Your task to perform on an android device: open app "AliExpress" Image 0: 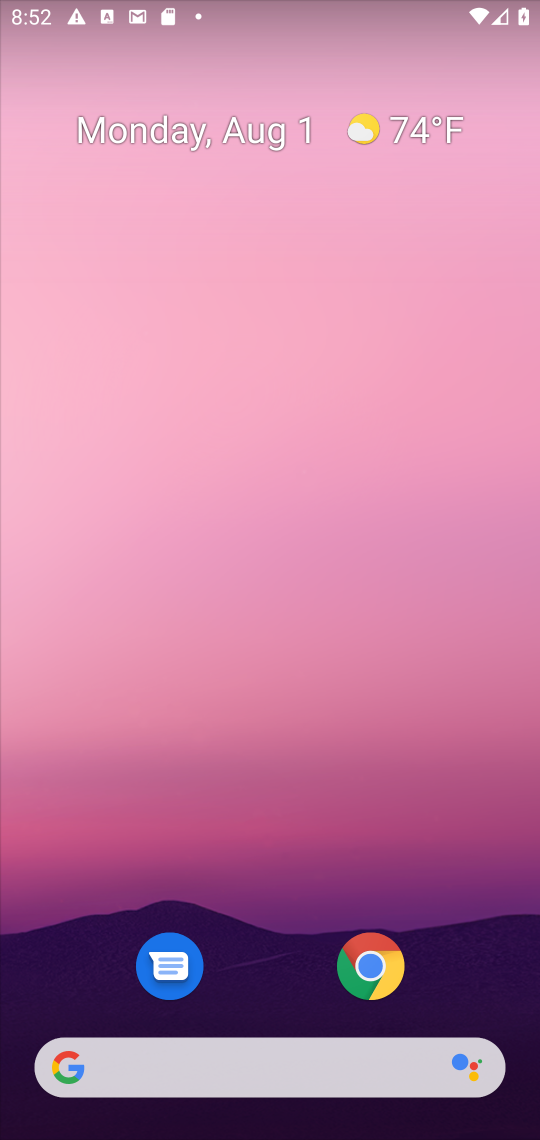
Step 0: press home button
Your task to perform on an android device: open app "AliExpress" Image 1: 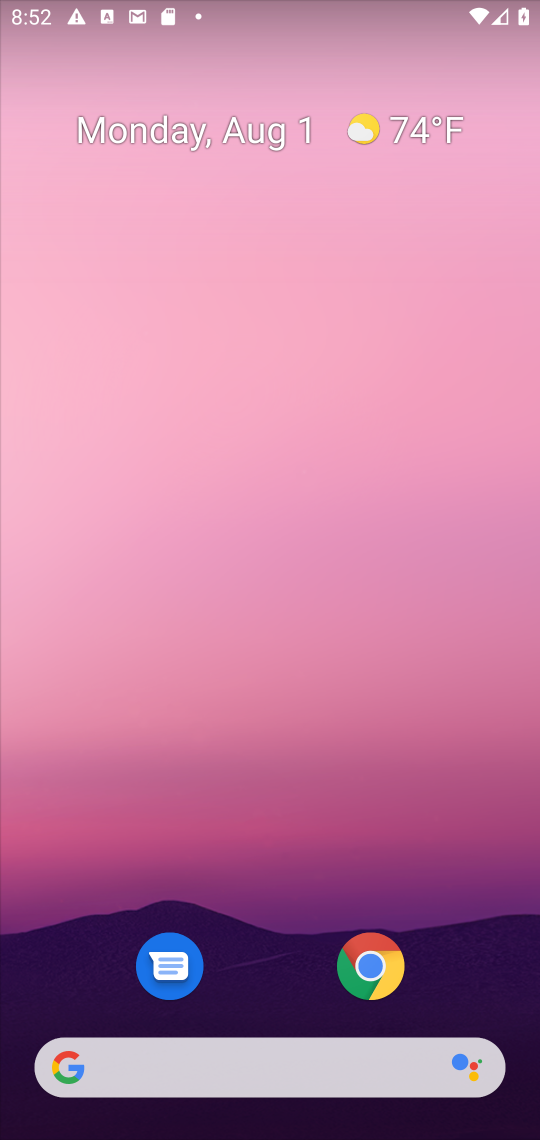
Step 1: drag from (520, 1048) to (451, 162)
Your task to perform on an android device: open app "AliExpress" Image 2: 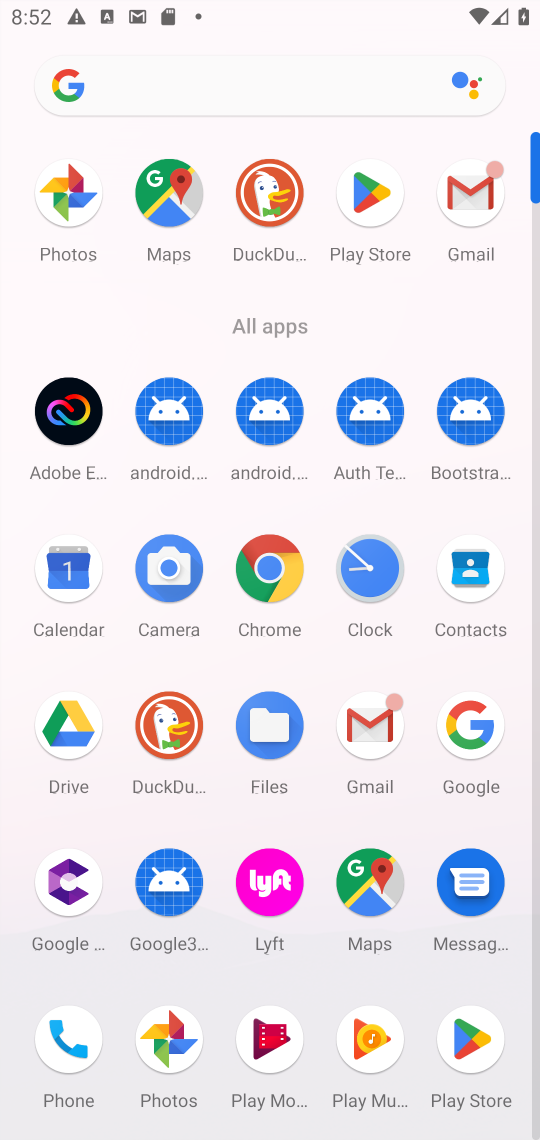
Step 2: drag from (230, 985) to (253, 427)
Your task to perform on an android device: open app "AliExpress" Image 3: 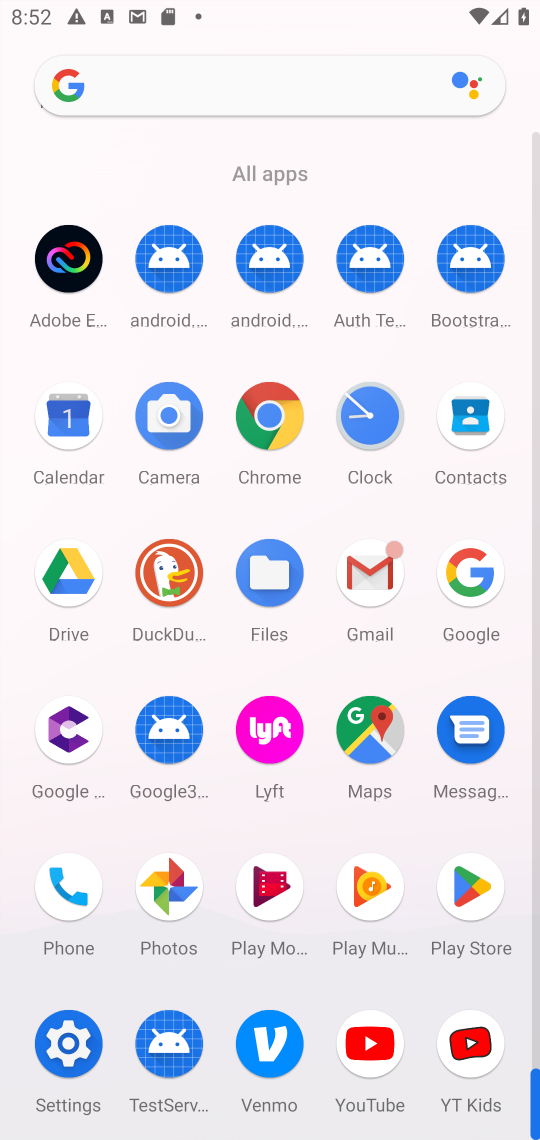
Step 3: click (478, 890)
Your task to perform on an android device: open app "AliExpress" Image 4: 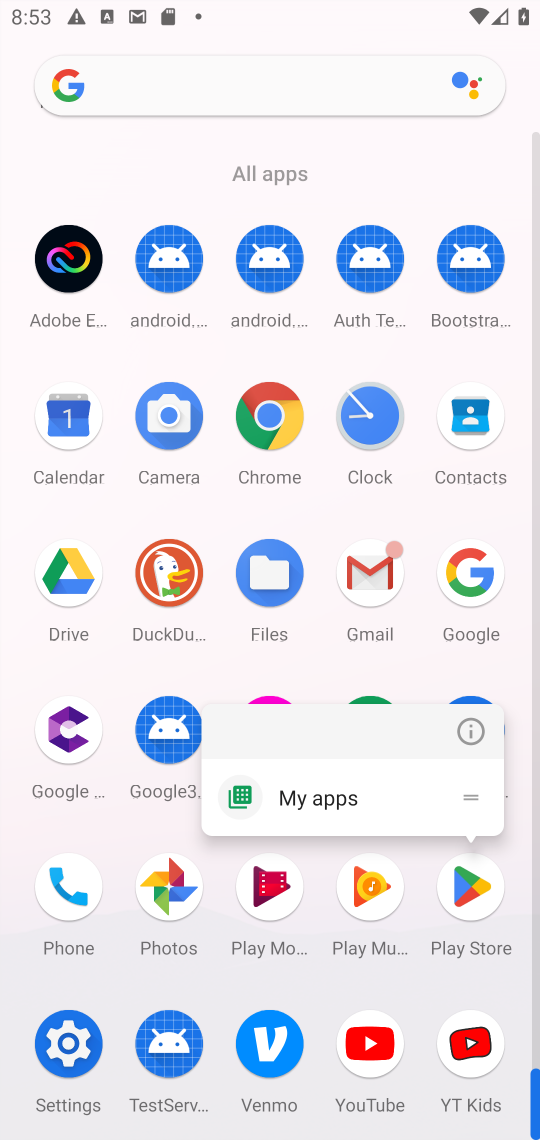
Step 4: click (456, 881)
Your task to perform on an android device: open app "AliExpress" Image 5: 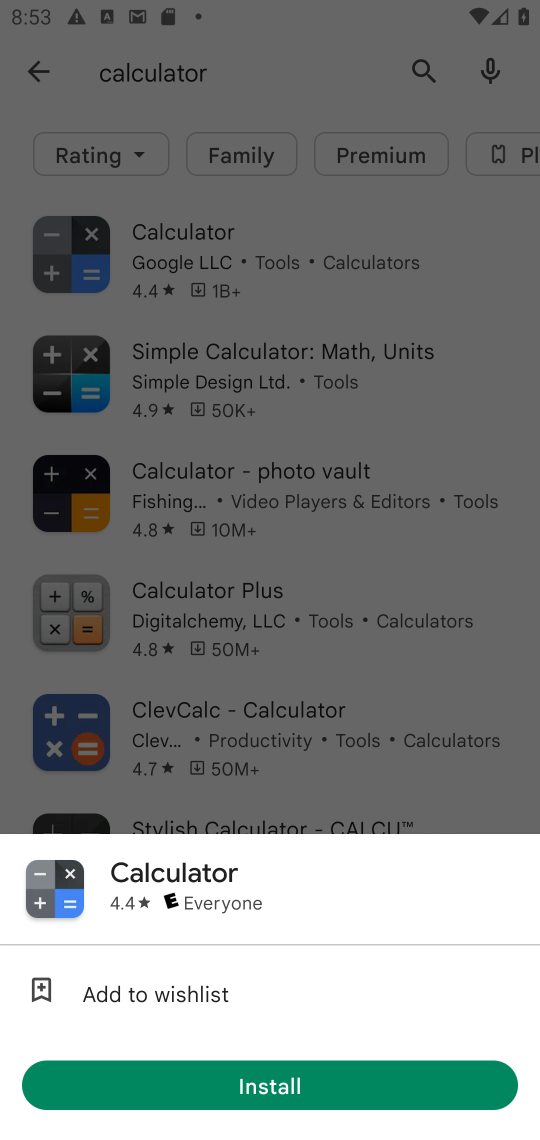
Step 5: click (430, 59)
Your task to perform on an android device: open app "AliExpress" Image 6: 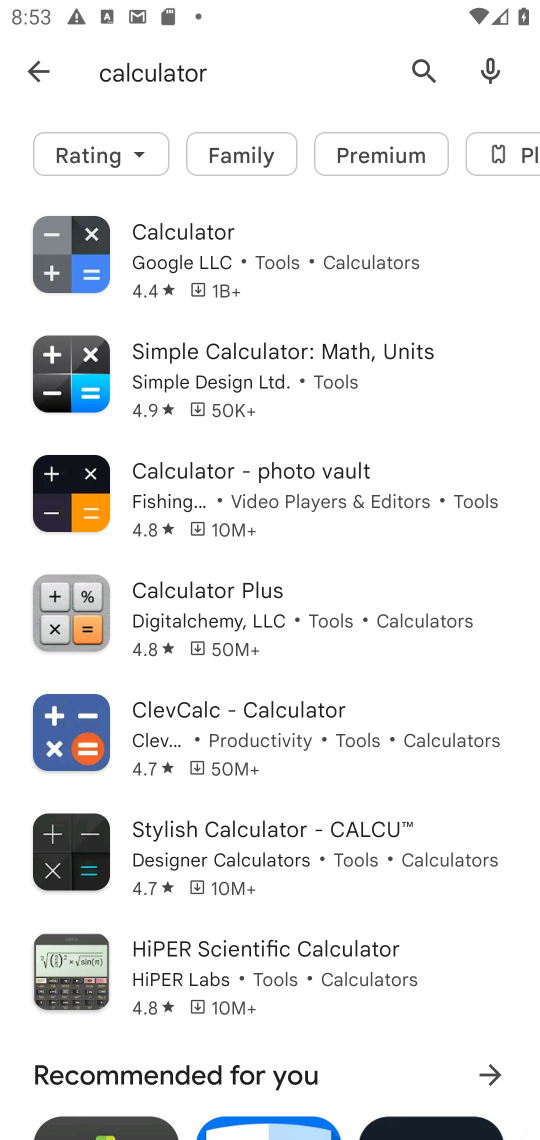
Step 6: click (423, 57)
Your task to perform on an android device: open app "AliExpress" Image 7: 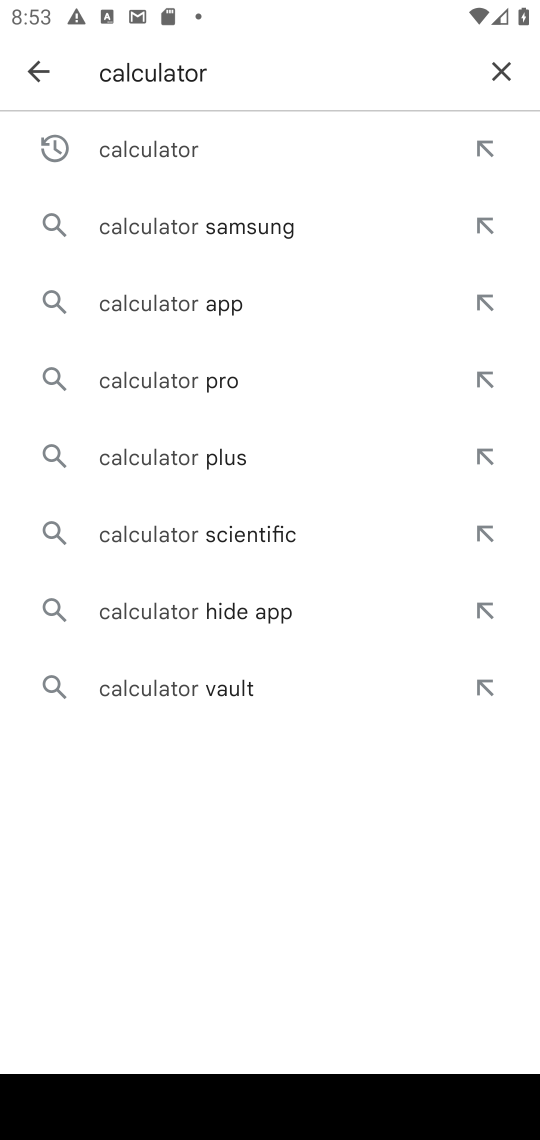
Step 7: click (32, 74)
Your task to perform on an android device: open app "AliExpress" Image 8: 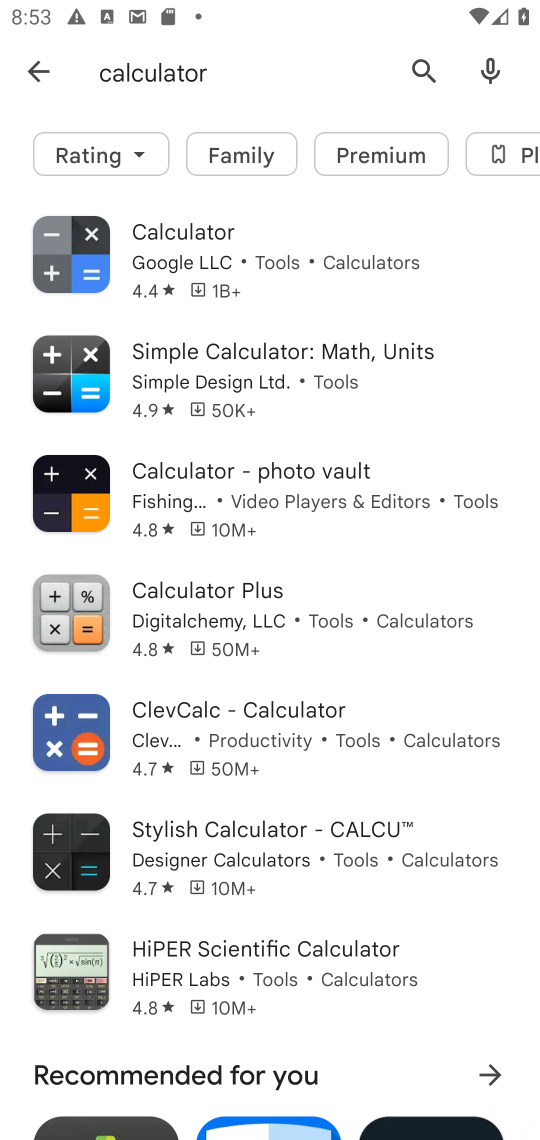
Step 8: click (32, 75)
Your task to perform on an android device: open app "AliExpress" Image 9: 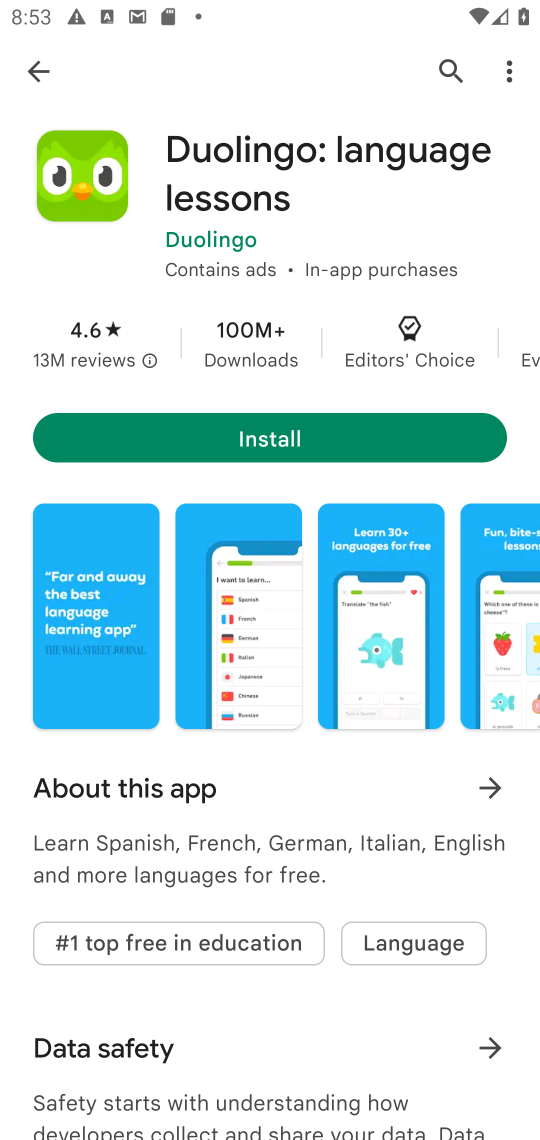
Step 9: click (447, 62)
Your task to perform on an android device: open app "AliExpress" Image 10: 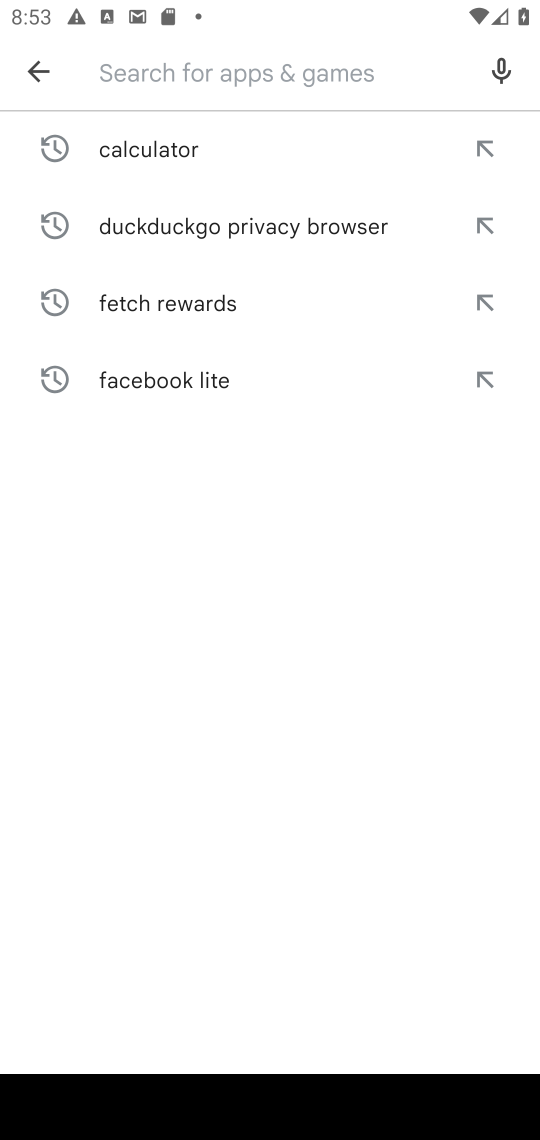
Step 10: type "AliExpress"
Your task to perform on an android device: open app "AliExpress" Image 11: 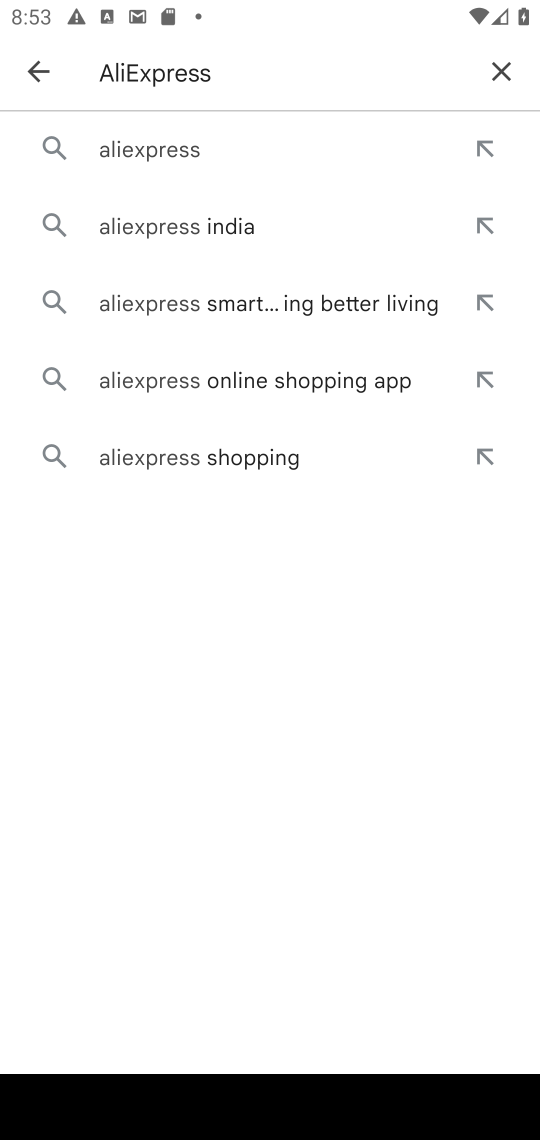
Step 11: click (105, 145)
Your task to perform on an android device: open app "AliExpress" Image 12: 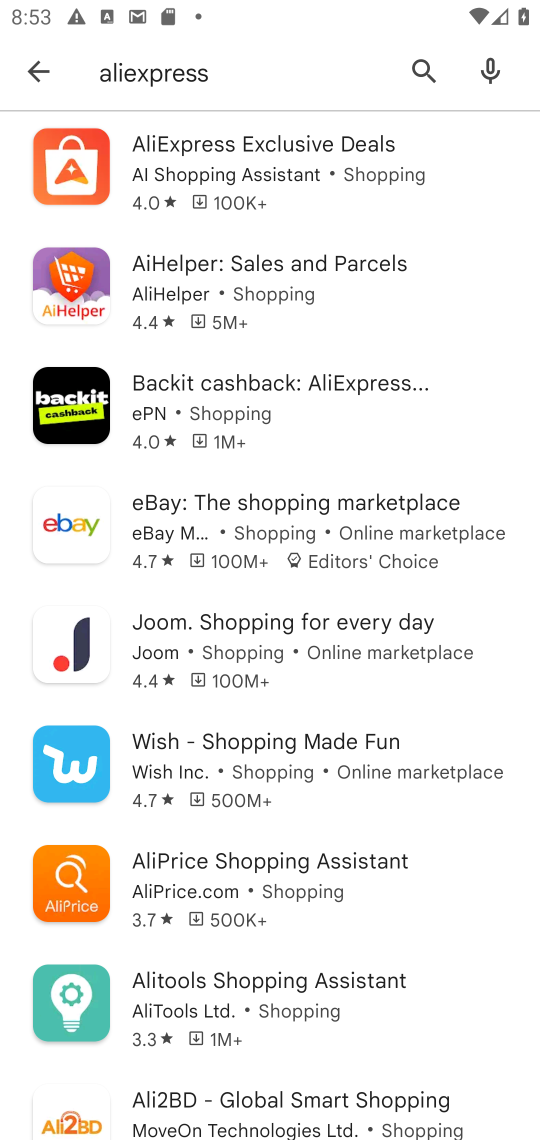
Step 12: click (223, 169)
Your task to perform on an android device: open app "AliExpress" Image 13: 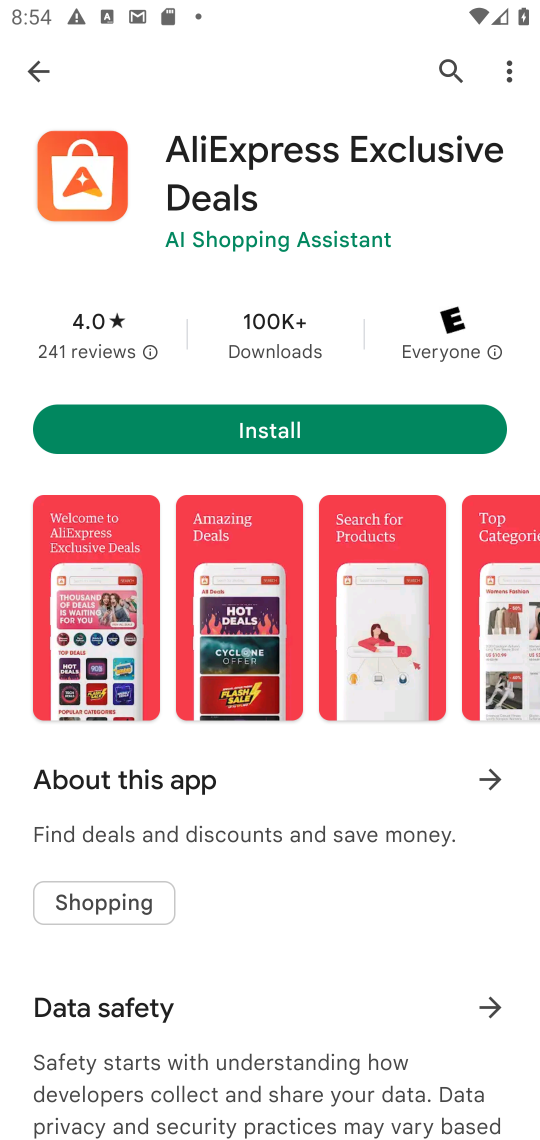
Step 13: task complete